Your task to perform on an android device: turn on the 24-hour format for clock Image 0: 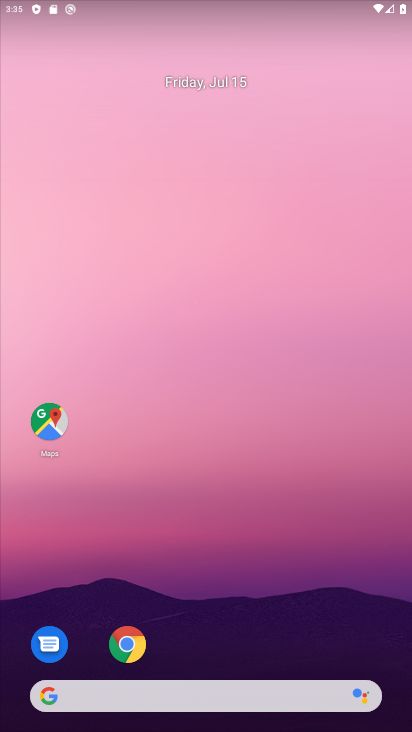
Step 0: drag from (272, 631) to (217, 148)
Your task to perform on an android device: turn on the 24-hour format for clock Image 1: 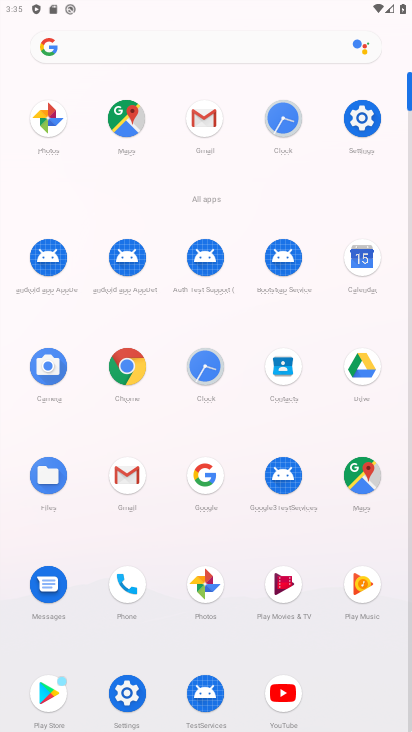
Step 1: click (278, 124)
Your task to perform on an android device: turn on the 24-hour format for clock Image 2: 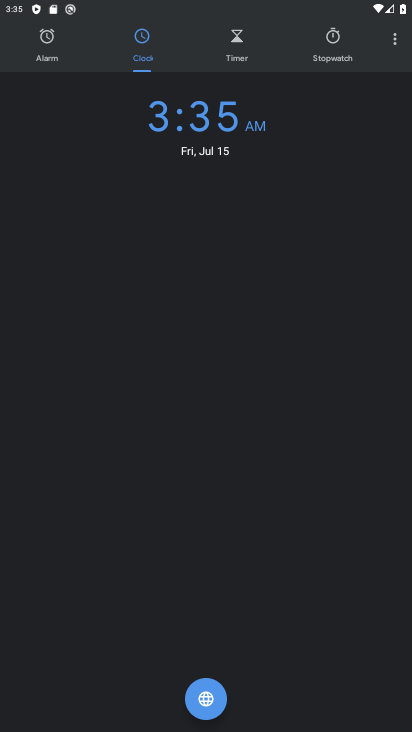
Step 2: click (394, 55)
Your task to perform on an android device: turn on the 24-hour format for clock Image 3: 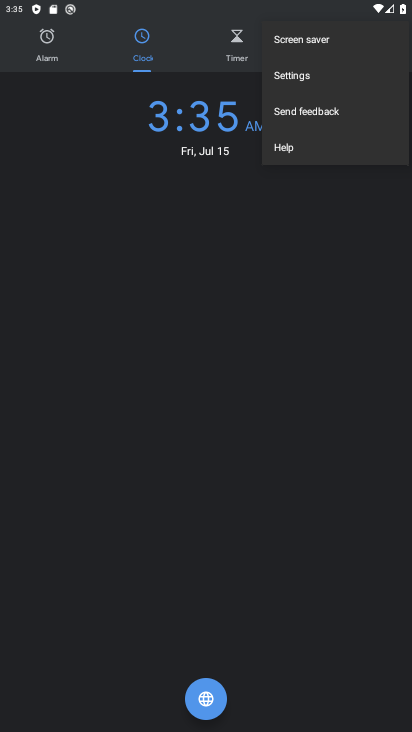
Step 3: click (337, 77)
Your task to perform on an android device: turn on the 24-hour format for clock Image 4: 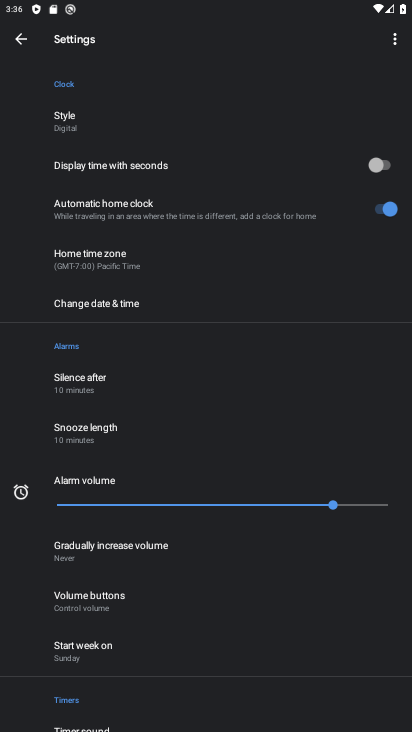
Step 4: click (248, 305)
Your task to perform on an android device: turn on the 24-hour format for clock Image 5: 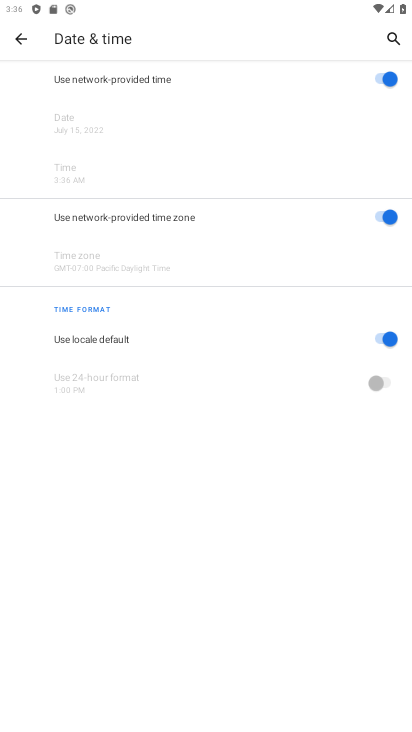
Step 5: click (386, 338)
Your task to perform on an android device: turn on the 24-hour format for clock Image 6: 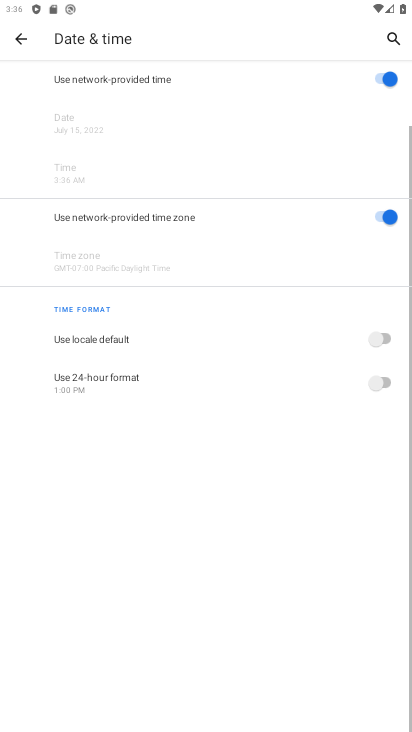
Step 6: click (382, 379)
Your task to perform on an android device: turn on the 24-hour format for clock Image 7: 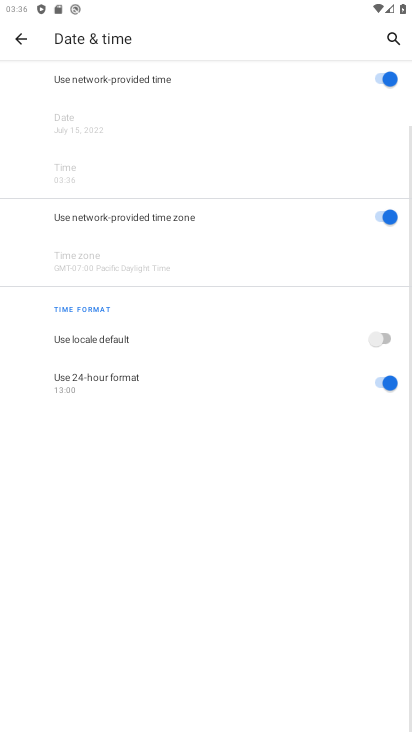
Step 7: task complete